Your task to perform on an android device: What's the weather today? Image 0: 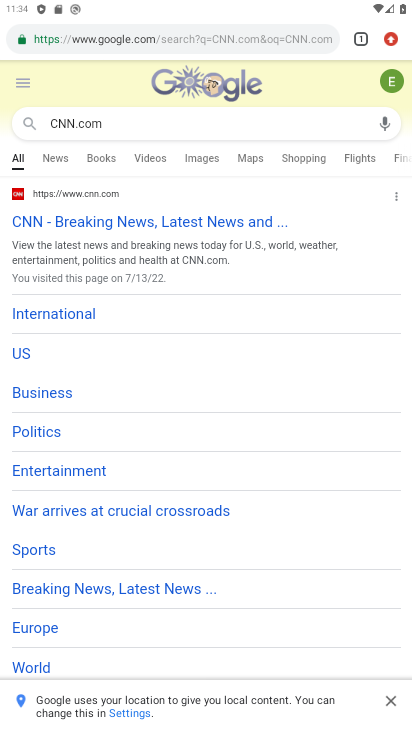
Step 0: press home button
Your task to perform on an android device: What's the weather today? Image 1: 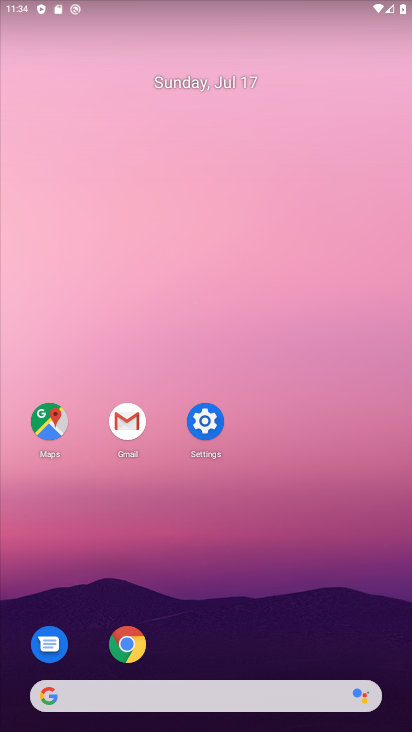
Step 1: drag from (0, 186) to (377, 210)
Your task to perform on an android device: What's the weather today? Image 2: 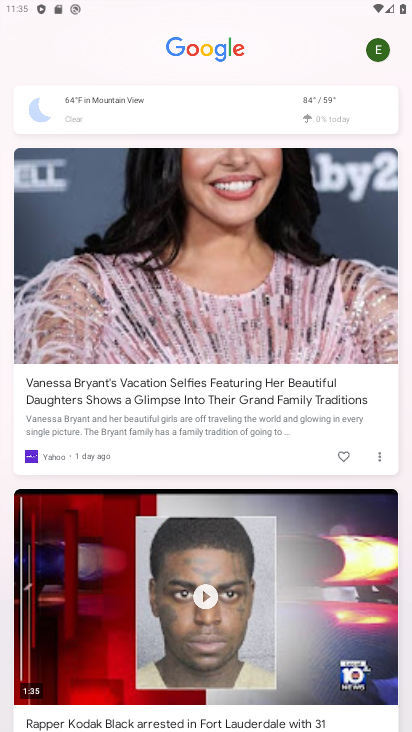
Step 2: click (326, 100)
Your task to perform on an android device: What's the weather today? Image 3: 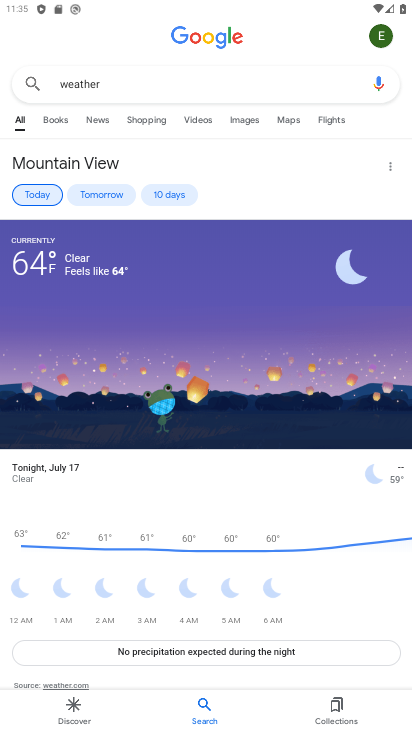
Step 3: click (43, 187)
Your task to perform on an android device: What's the weather today? Image 4: 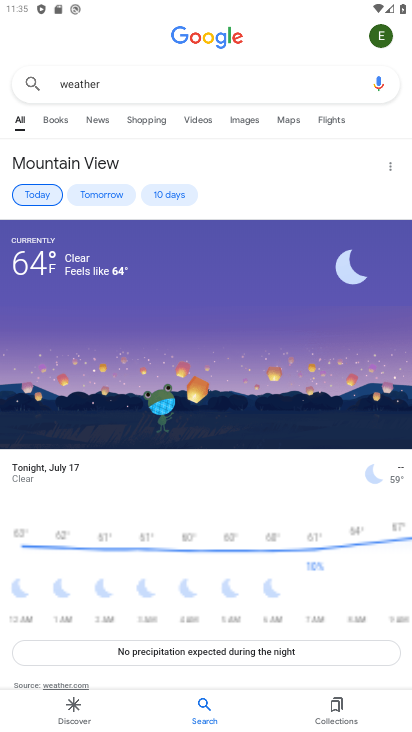
Step 4: task complete